Your task to perform on an android device: empty trash in the gmail app Image 0: 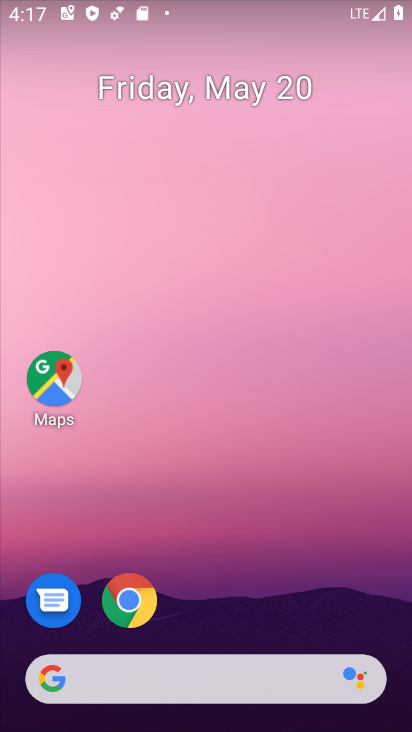
Step 0: drag from (276, 583) to (252, 74)
Your task to perform on an android device: empty trash in the gmail app Image 1: 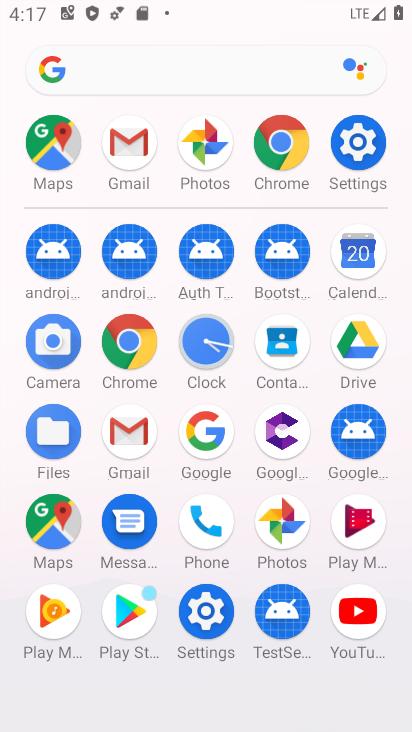
Step 1: drag from (14, 601) to (13, 302)
Your task to perform on an android device: empty trash in the gmail app Image 2: 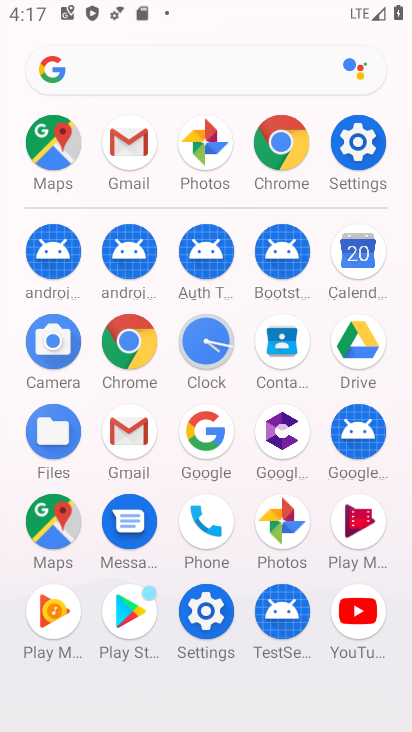
Step 2: click (131, 430)
Your task to perform on an android device: empty trash in the gmail app Image 3: 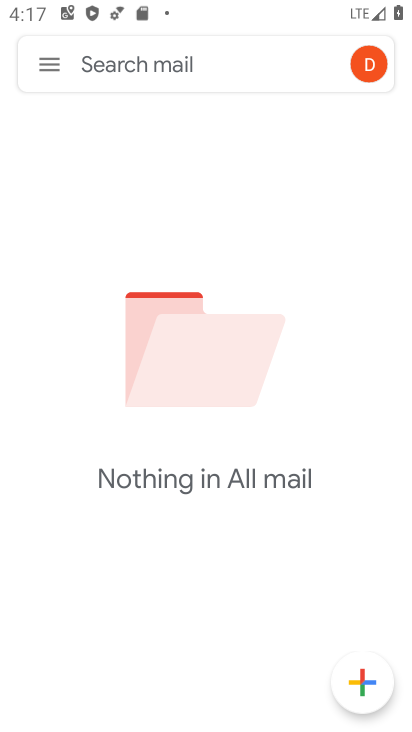
Step 3: click (48, 63)
Your task to perform on an android device: empty trash in the gmail app Image 4: 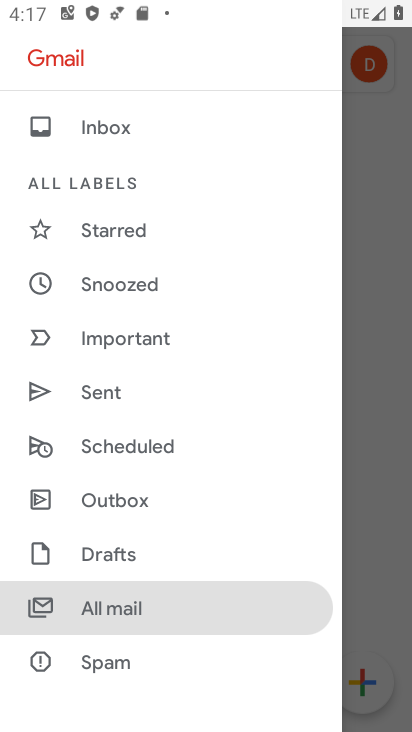
Step 4: drag from (202, 600) to (233, 232)
Your task to perform on an android device: empty trash in the gmail app Image 5: 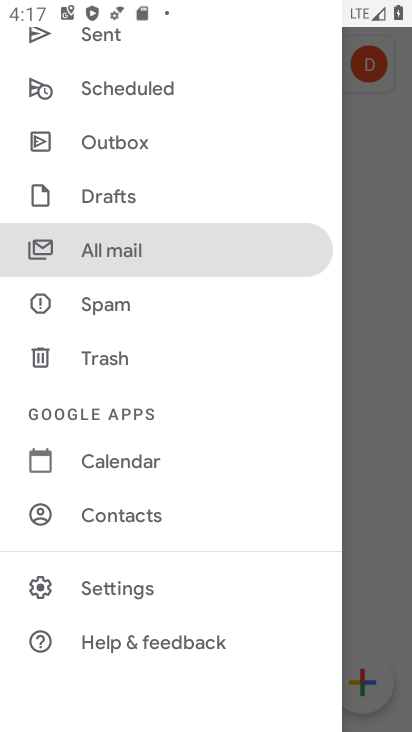
Step 5: click (123, 366)
Your task to perform on an android device: empty trash in the gmail app Image 6: 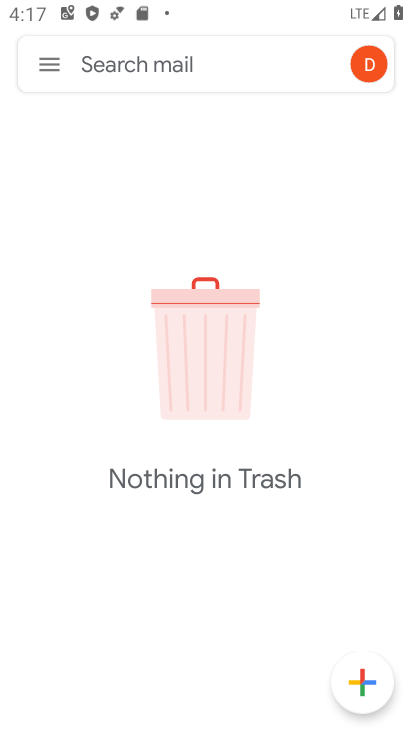
Step 6: task complete